Your task to perform on an android device: Open Wikipedia Image 0: 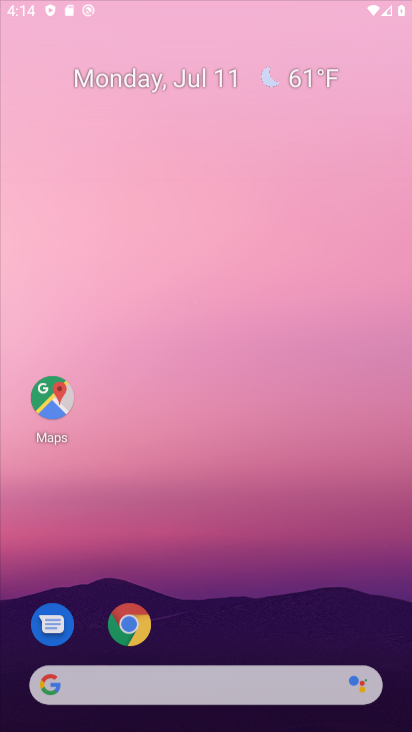
Step 0: drag from (306, 650) to (350, 91)
Your task to perform on an android device: Open Wikipedia Image 1: 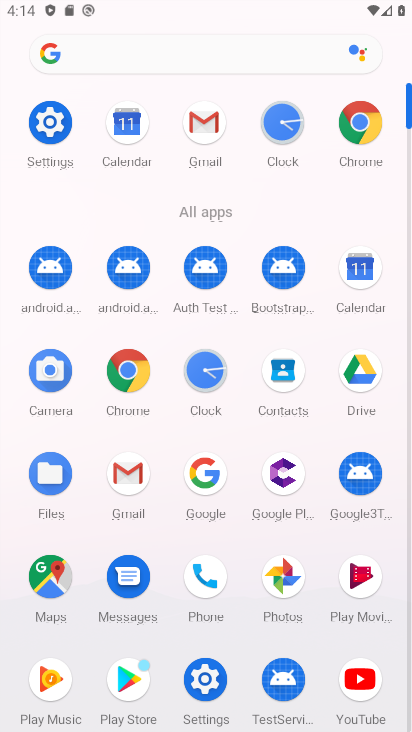
Step 1: click (352, 129)
Your task to perform on an android device: Open Wikipedia Image 2: 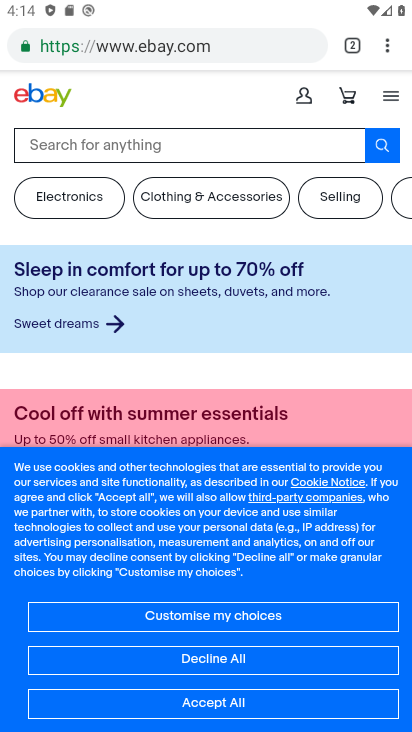
Step 2: drag from (387, 46) to (258, 87)
Your task to perform on an android device: Open Wikipedia Image 3: 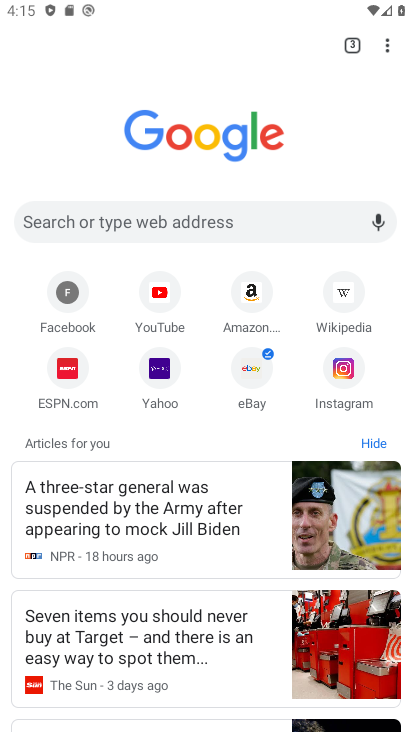
Step 3: click (348, 302)
Your task to perform on an android device: Open Wikipedia Image 4: 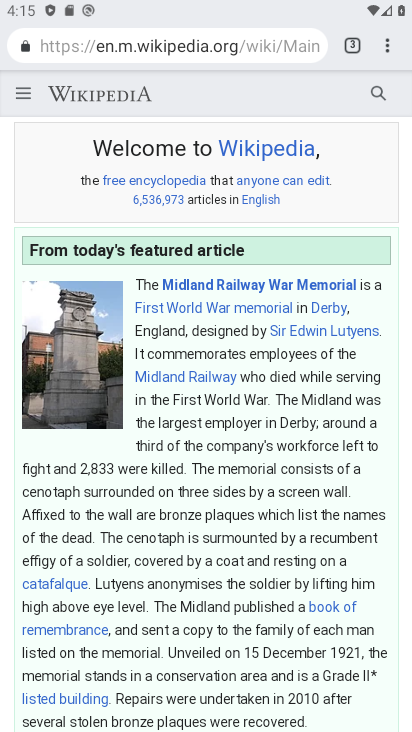
Step 4: task complete